Your task to perform on an android device: Search for sushi restaurants on Maps Image 0: 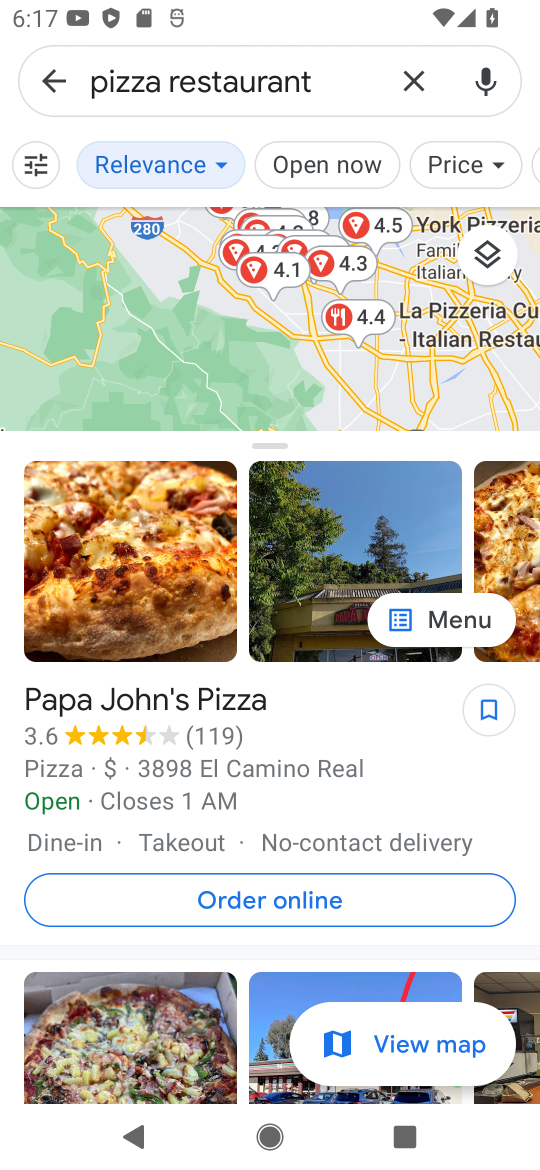
Step 0: press home button
Your task to perform on an android device: Search for sushi restaurants on Maps Image 1: 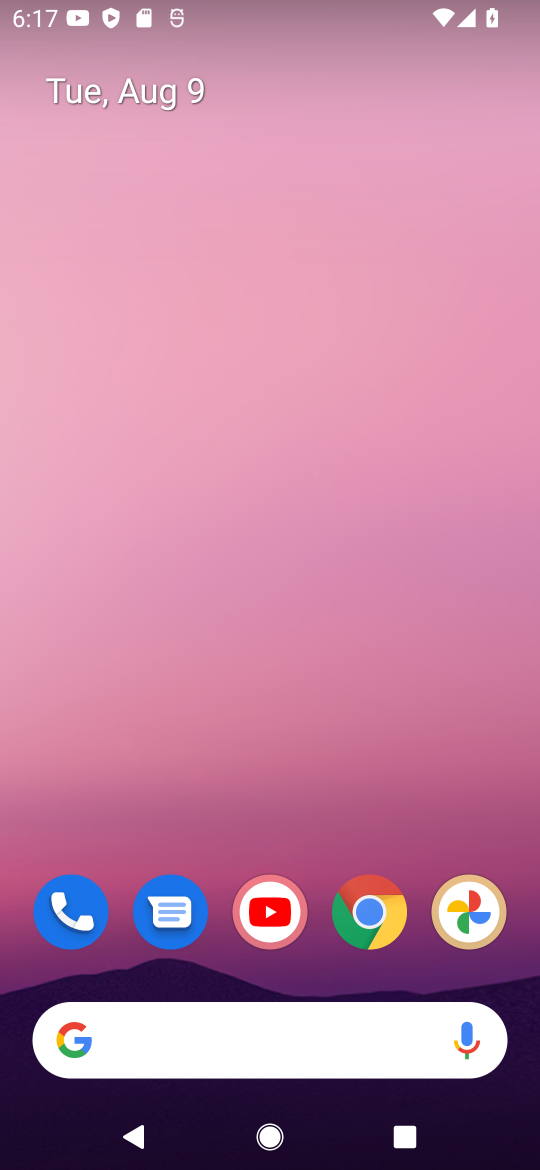
Step 1: drag from (366, 765) to (458, 67)
Your task to perform on an android device: Search for sushi restaurants on Maps Image 2: 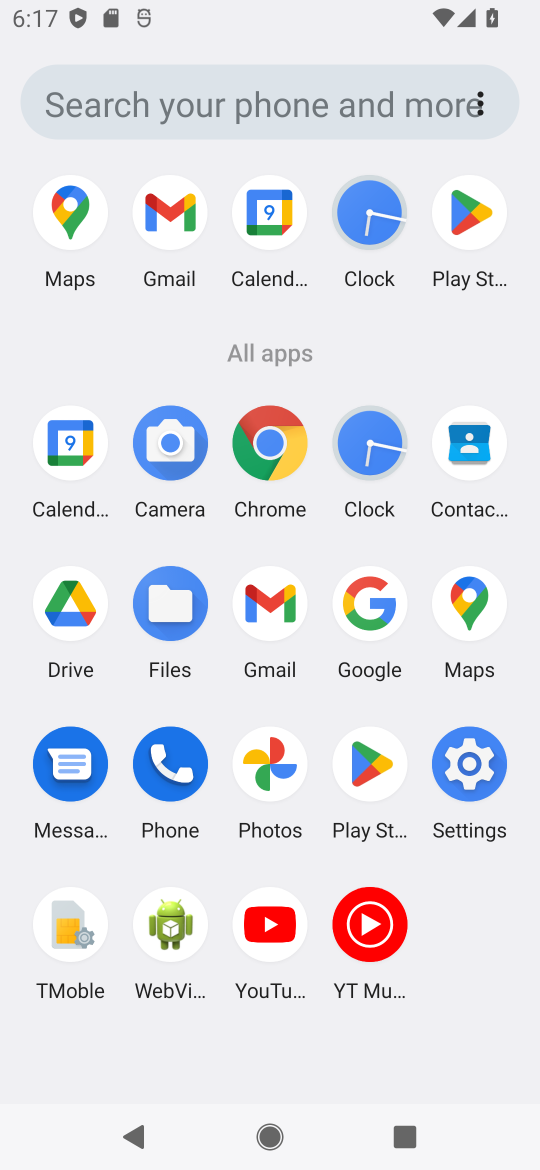
Step 2: click (467, 575)
Your task to perform on an android device: Search for sushi restaurants on Maps Image 3: 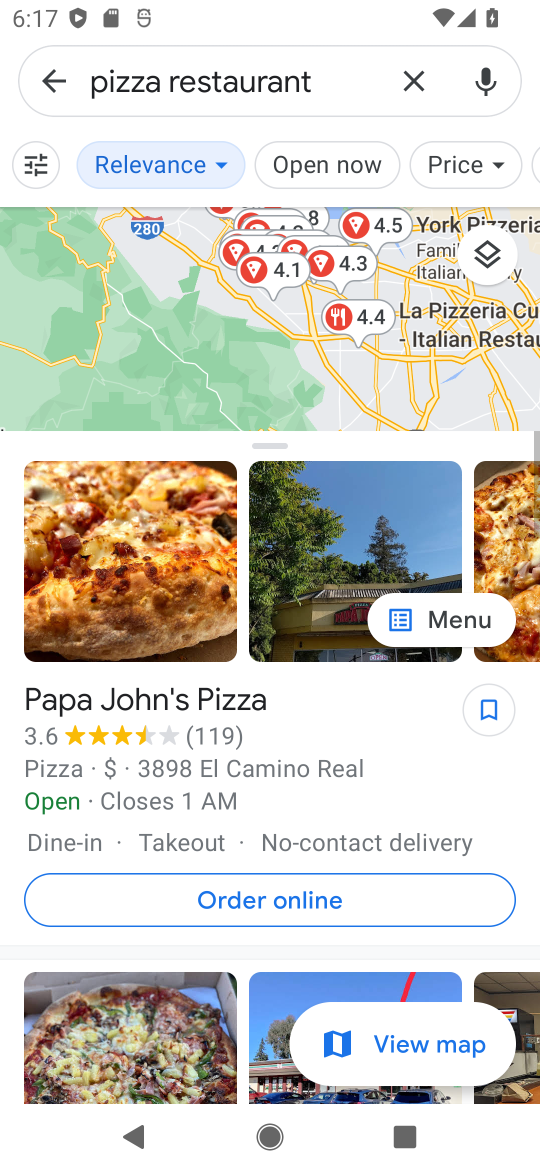
Step 3: click (420, 84)
Your task to perform on an android device: Search for sushi restaurants on Maps Image 4: 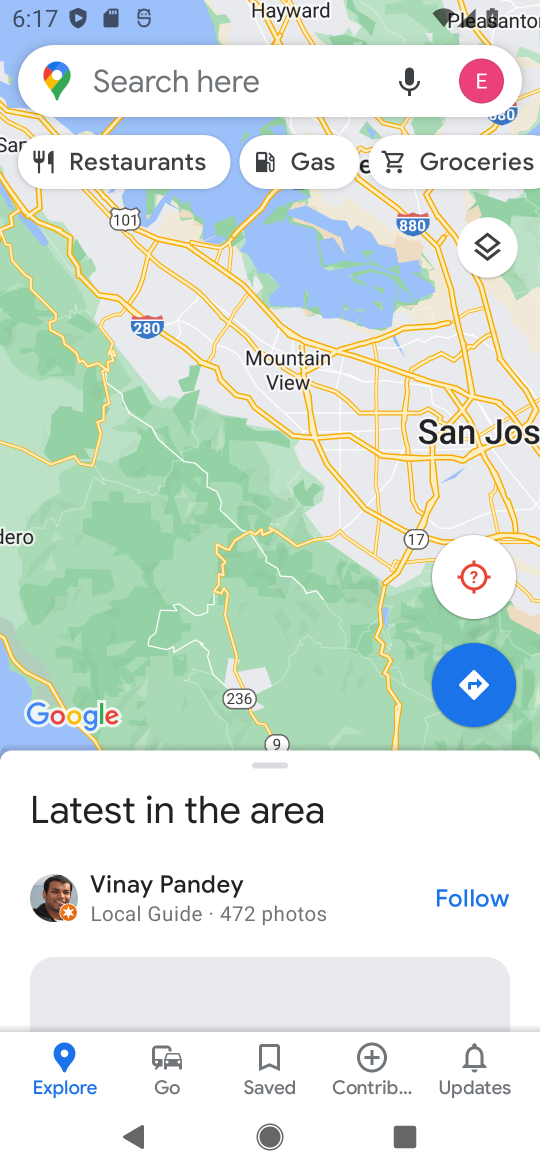
Step 4: click (212, 77)
Your task to perform on an android device: Search for sushi restaurants on Maps Image 5: 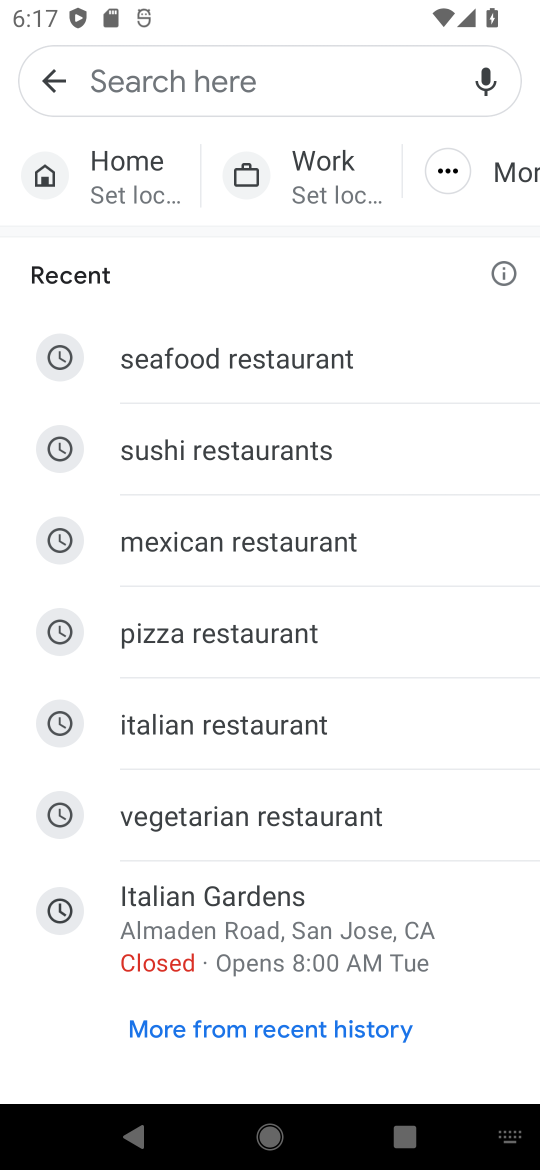
Step 5: click (268, 460)
Your task to perform on an android device: Search for sushi restaurants on Maps Image 6: 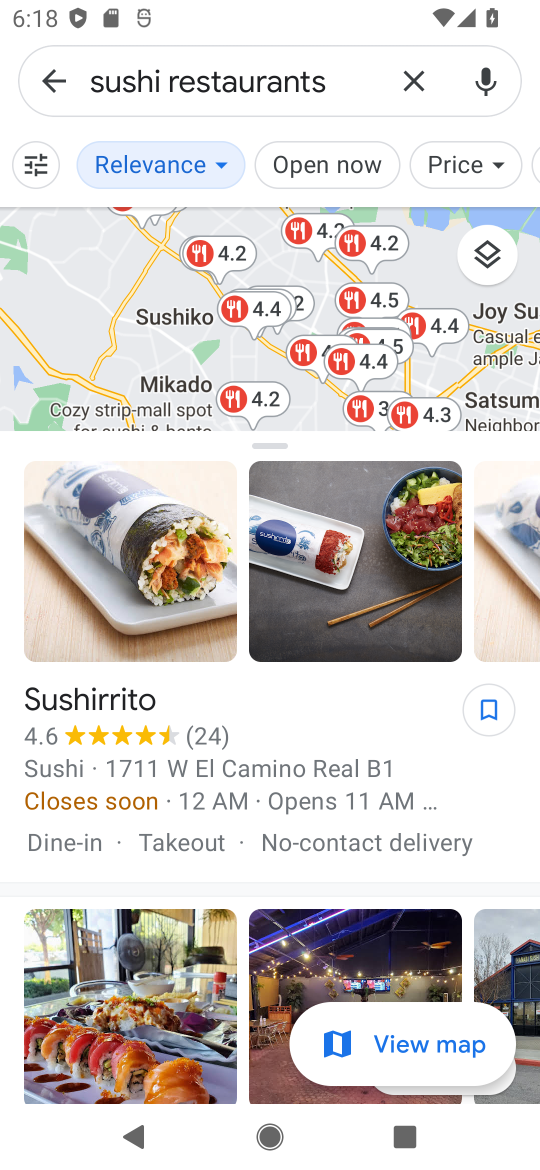
Step 6: task complete